Your task to perform on an android device: turn on improve location accuracy Image 0: 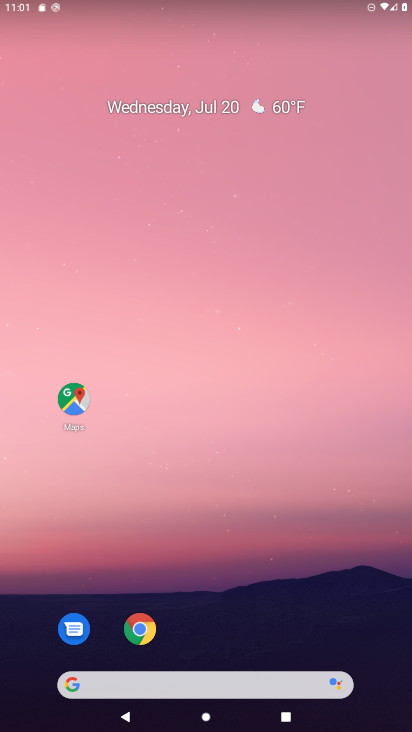
Step 0: drag from (211, 628) to (248, 124)
Your task to perform on an android device: turn on improve location accuracy Image 1: 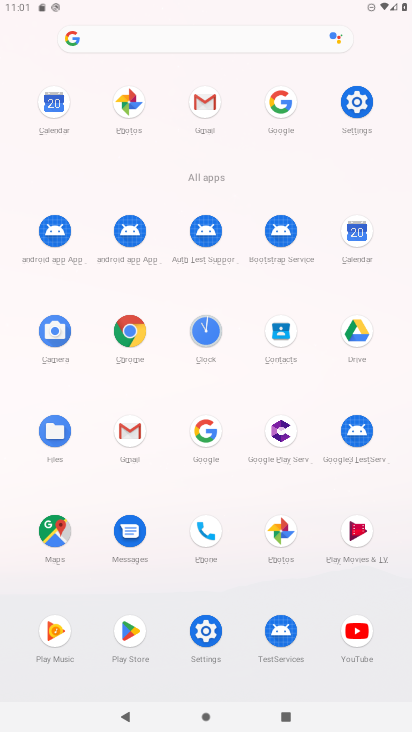
Step 1: click (351, 108)
Your task to perform on an android device: turn on improve location accuracy Image 2: 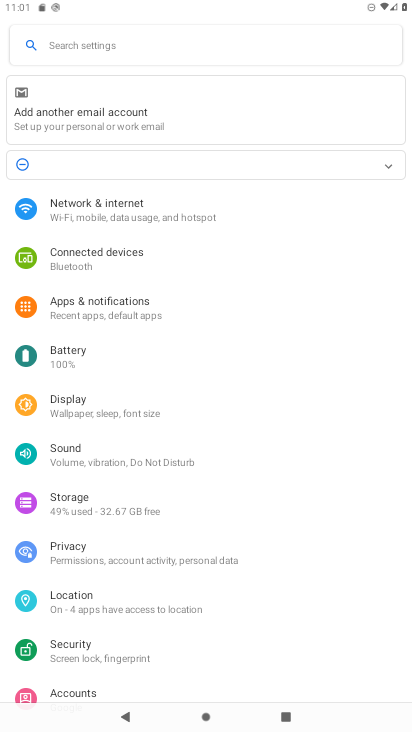
Step 2: click (118, 608)
Your task to perform on an android device: turn on improve location accuracy Image 3: 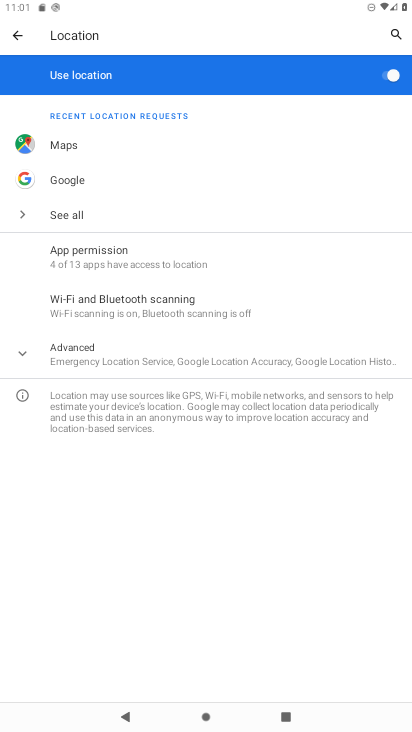
Step 3: click (181, 367)
Your task to perform on an android device: turn on improve location accuracy Image 4: 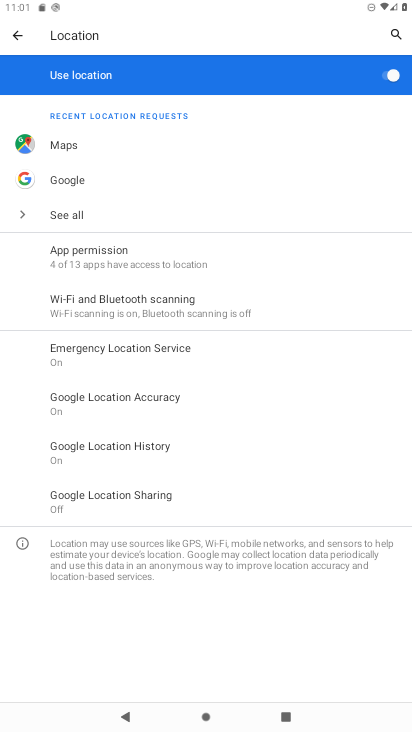
Step 4: click (169, 402)
Your task to perform on an android device: turn on improve location accuracy Image 5: 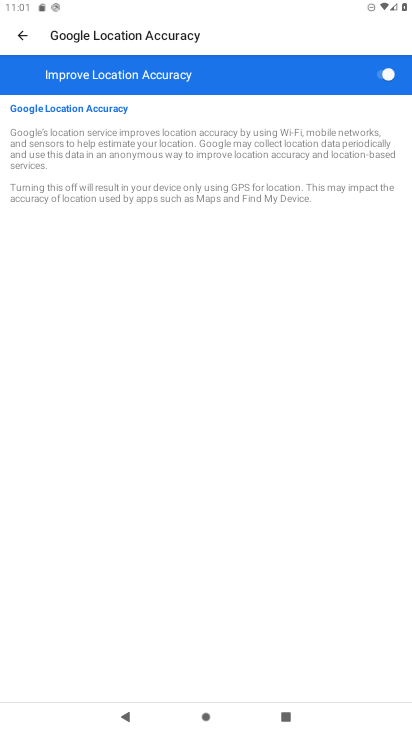
Step 5: task complete